Your task to perform on an android device: toggle improve location accuracy Image 0: 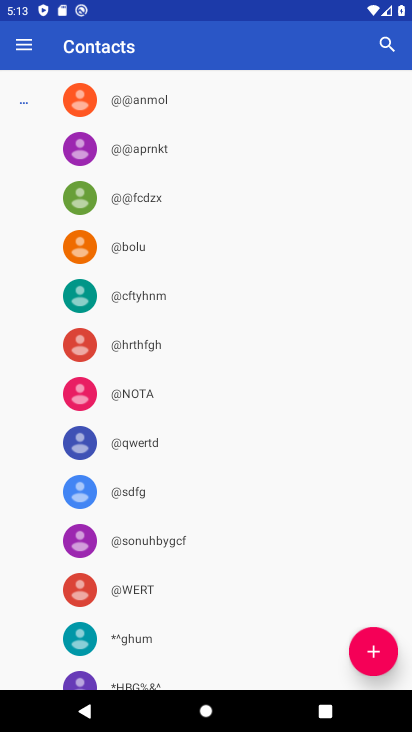
Step 0: press back button
Your task to perform on an android device: toggle improve location accuracy Image 1: 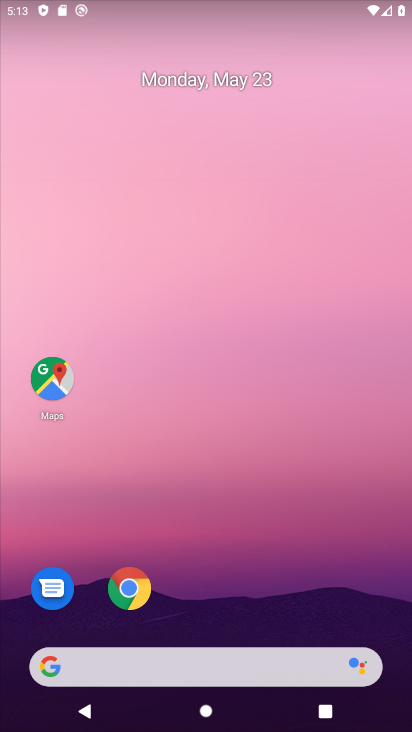
Step 1: drag from (310, 555) to (299, 5)
Your task to perform on an android device: toggle improve location accuracy Image 2: 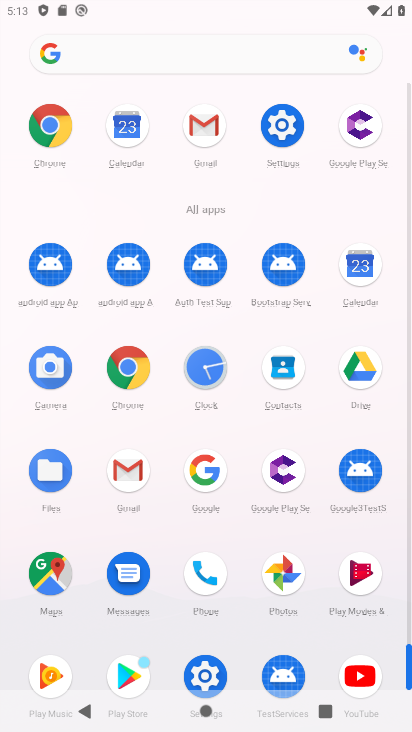
Step 2: drag from (20, 569) to (19, 243)
Your task to perform on an android device: toggle improve location accuracy Image 3: 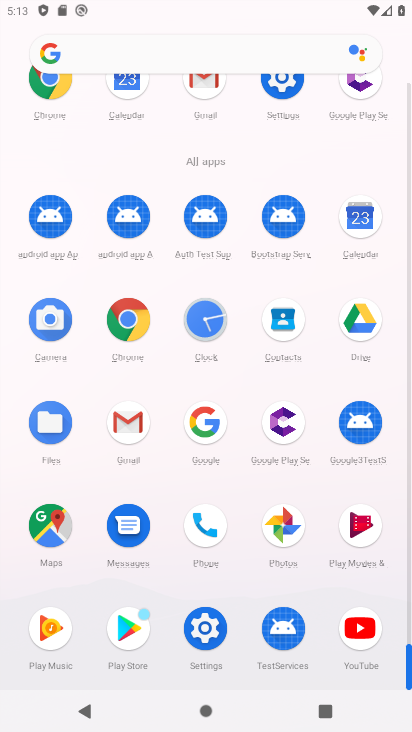
Step 3: click (205, 625)
Your task to perform on an android device: toggle improve location accuracy Image 4: 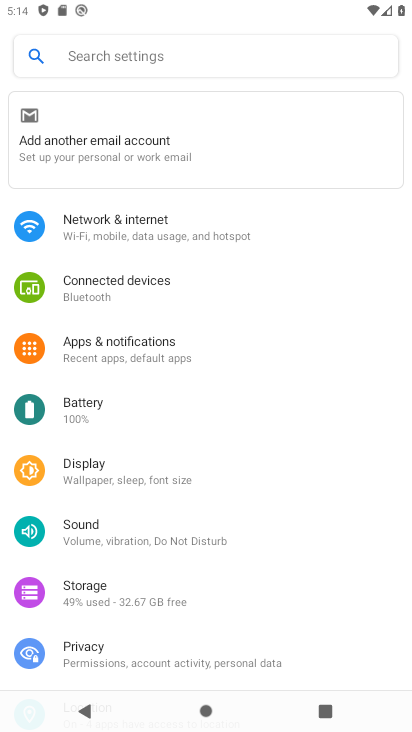
Step 4: drag from (199, 542) to (233, 193)
Your task to perform on an android device: toggle improve location accuracy Image 5: 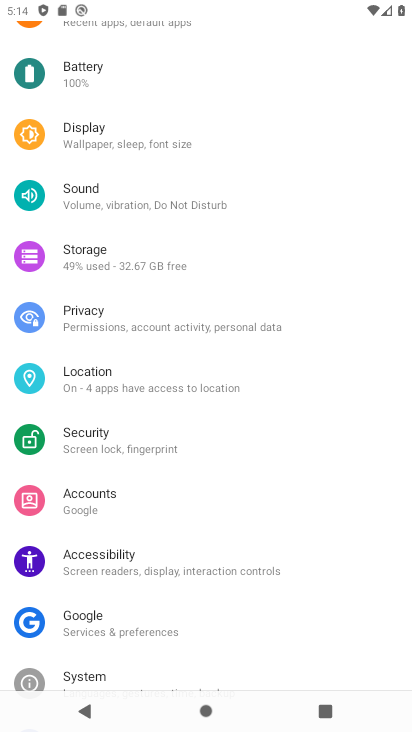
Step 5: drag from (178, 496) to (227, 98)
Your task to perform on an android device: toggle improve location accuracy Image 6: 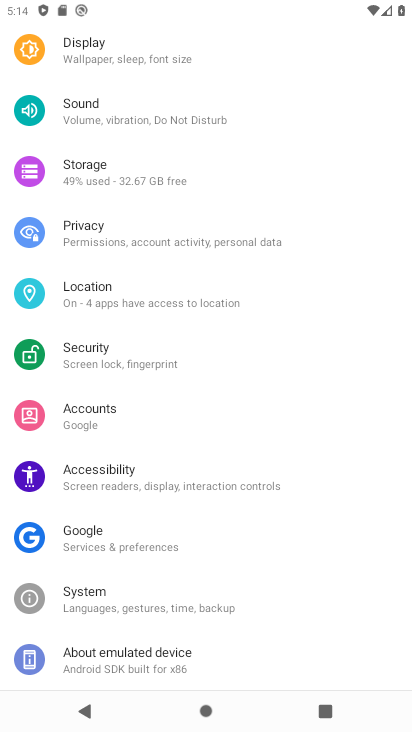
Step 6: drag from (238, 60) to (238, 545)
Your task to perform on an android device: toggle improve location accuracy Image 7: 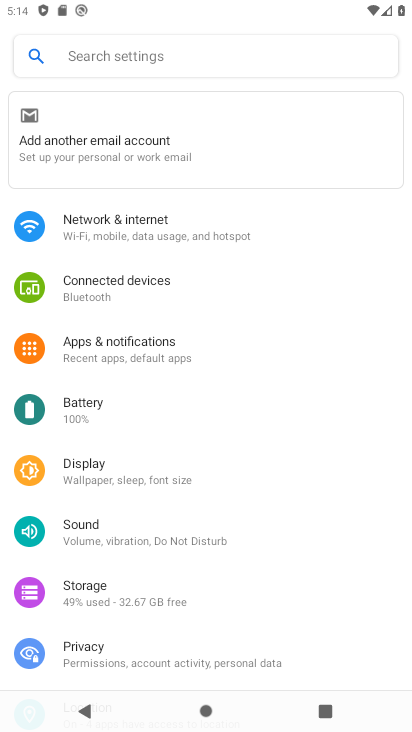
Step 7: drag from (268, 312) to (268, 206)
Your task to perform on an android device: toggle improve location accuracy Image 8: 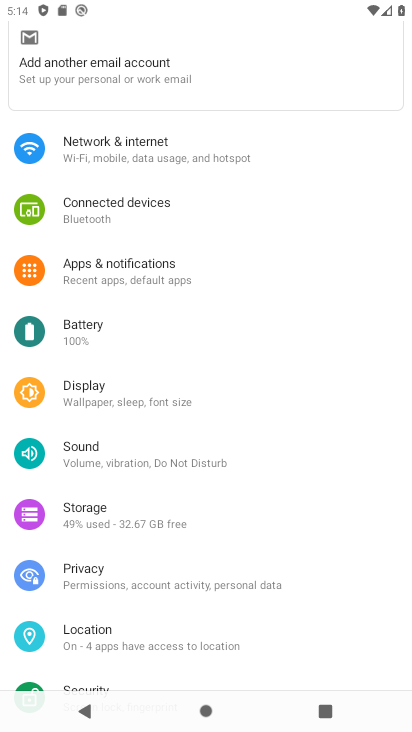
Step 8: drag from (213, 500) to (231, 178)
Your task to perform on an android device: toggle improve location accuracy Image 9: 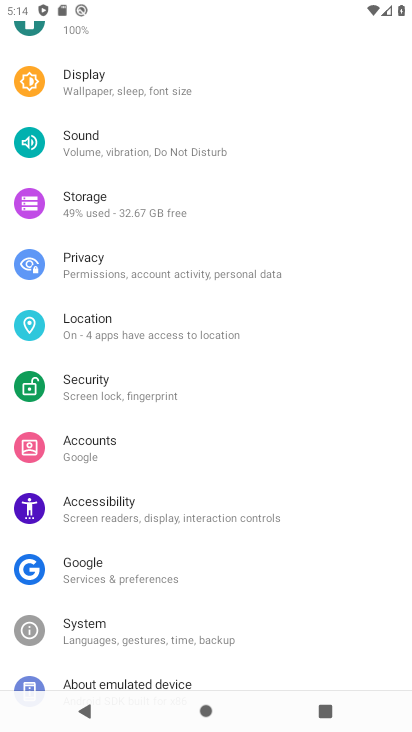
Step 9: click (155, 338)
Your task to perform on an android device: toggle improve location accuracy Image 10: 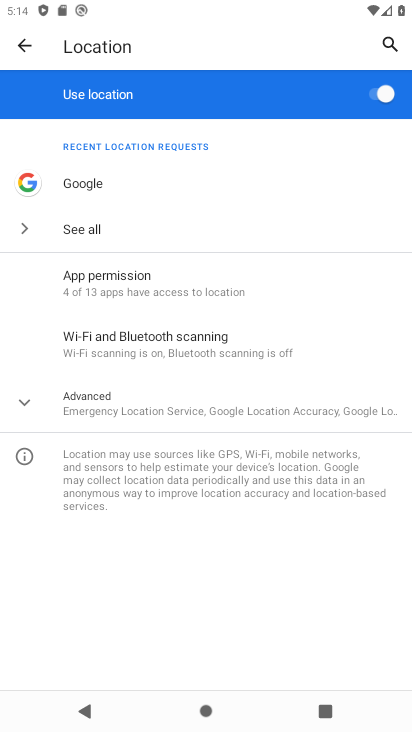
Step 10: click (30, 408)
Your task to perform on an android device: toggle improve location accuracy Image 11: 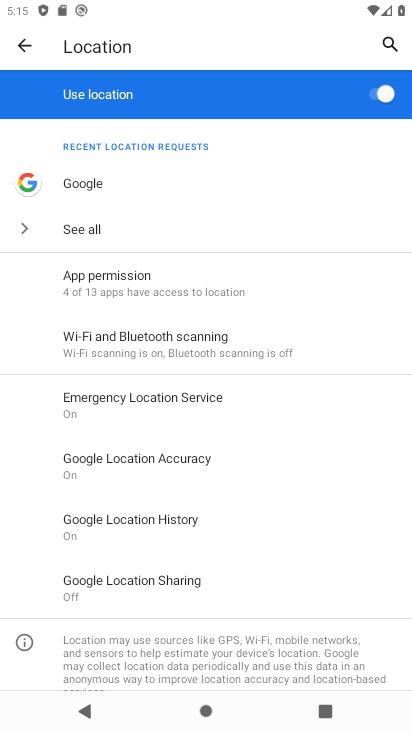
Step 11: click (164, 466)
Your task to perform on an android device: toggle improve location accuracy Image 12: 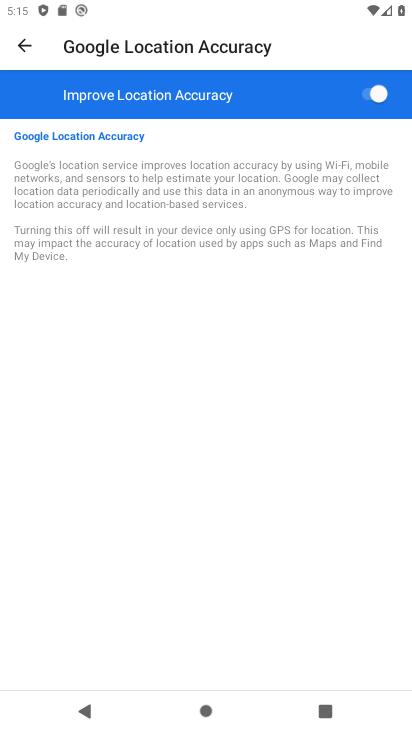
Step 12: click (361, 91)
Your task to perform on an android device: toggle improve location accuracy Image 13: 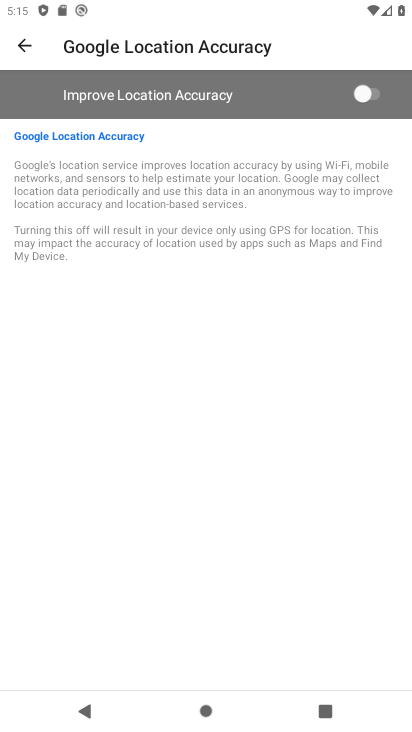
Step 13: task complete